Your task to perform on an android device: toggle javascript in the chrome app Image 0: 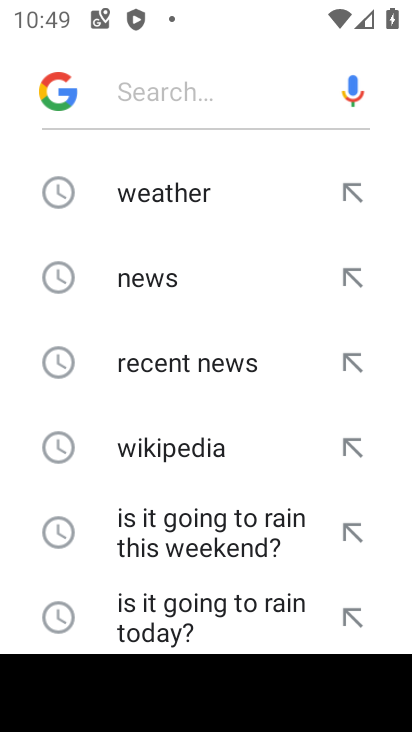
Step 0: press home button
Your task to perform on an android device: toggle javascript in the chrome app Image 1: 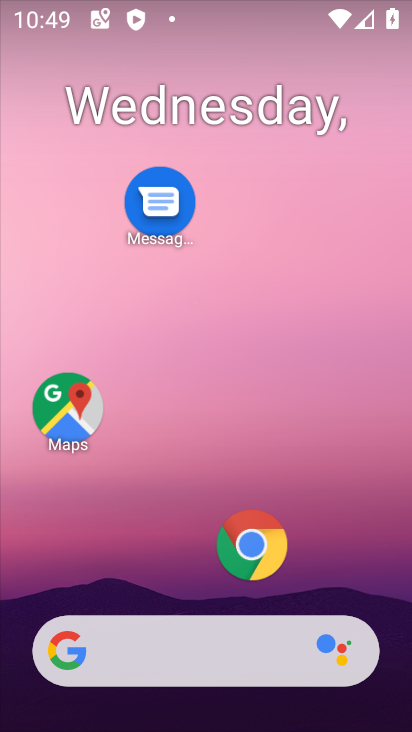
Step 1: click (277, 524)
Your task to perform on an android device: toggle javascript in the chrome app Image 2: 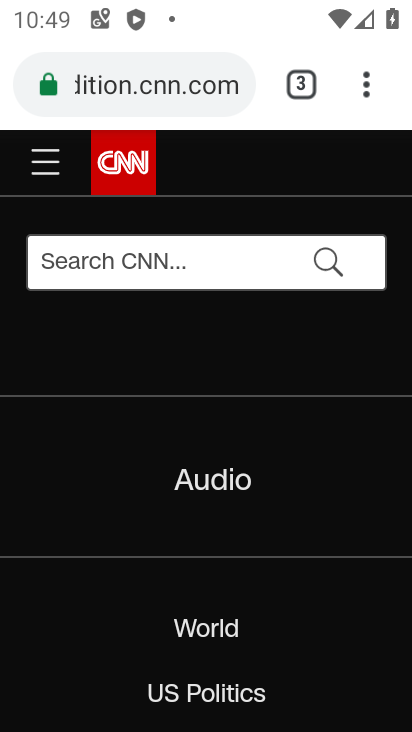
Step 2: click (360, 91)
Your task to perform on an android device: toggle javascript in the chrome app Image 3: 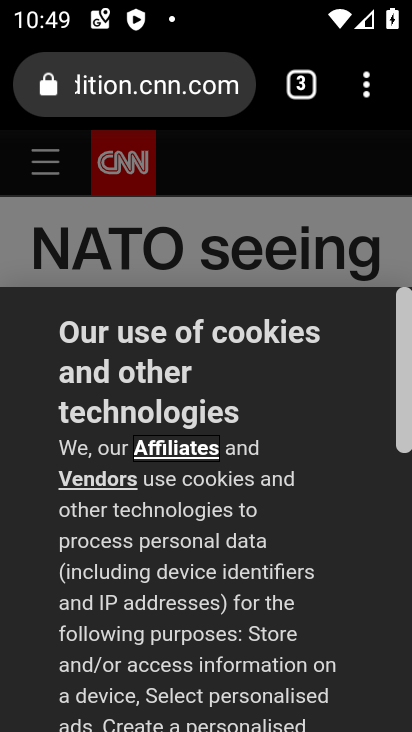
Step 3: click (359, 90)
Your task to perform on an android device: toggle javascript in the chrome app Image 4: 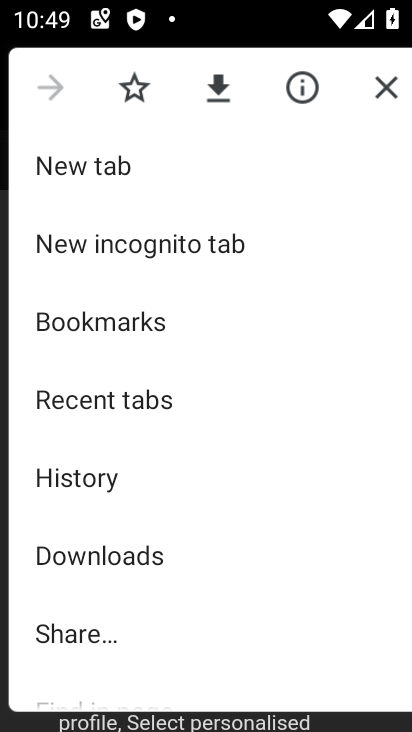
Step 4: drag from (147, 543) to (209, 314)
Your task to perform on an android device: toggle javascript in the chrome app Image 5: 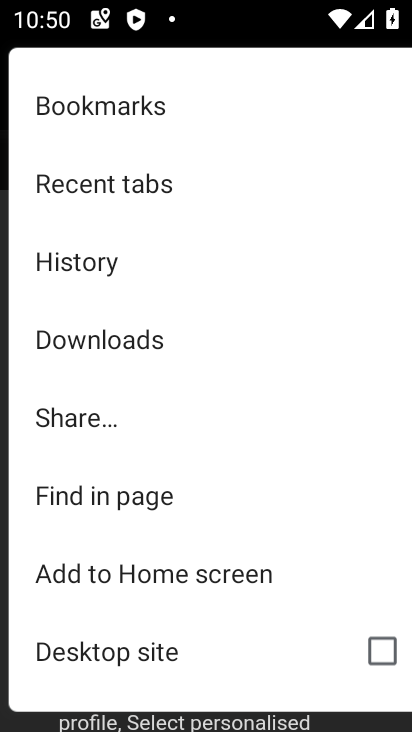
Step 5: drag from (202, 547) to (176, 330)
Your task to perform on an android device: toggle javascript in the chrome app Image 6: 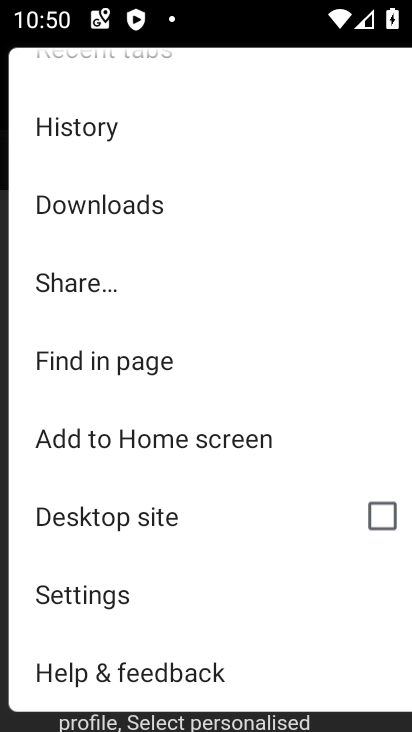
Step 6: click (149, 607)
Your task to perform on an android device: toggle javascript in the chrome app Image 7: 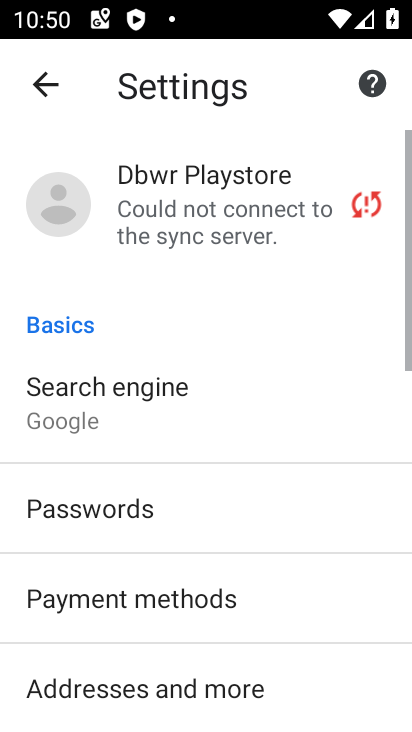
Step 7: drag from (150, 606) to (231, 225)
Your task to perform on an android device: toggle javascript in the chrome app Image 8: 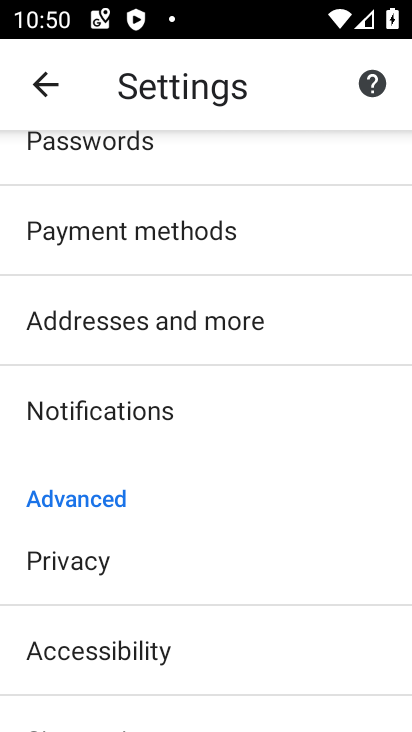
Step 8: drag from (125, 655) to (198, 323)
Your task to perform on an android device: toggle javascript in the chrome app Image 9: 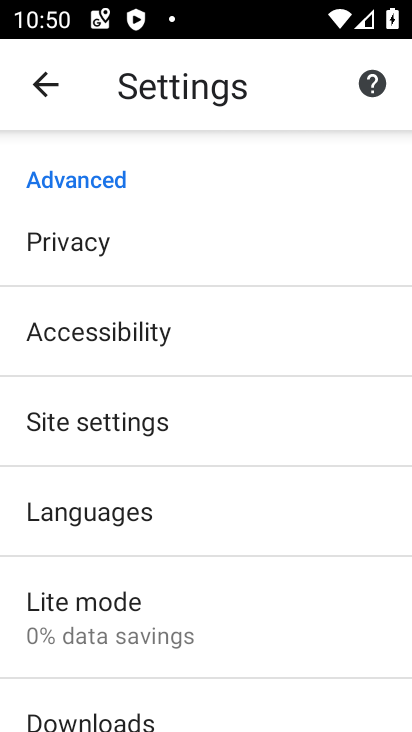
Step 9: drag from (145, 631) to (175, 450)
Your task to perform on an android device: toggle javascript in the chrome app Image 10: 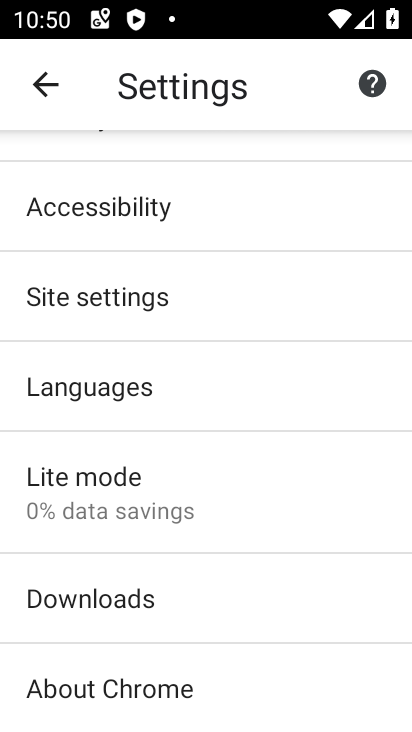
Step 10: drag from (160, 241) to (161, 425)
Your task to perform on an android device: toggle javascript in the chrome app Image 11: 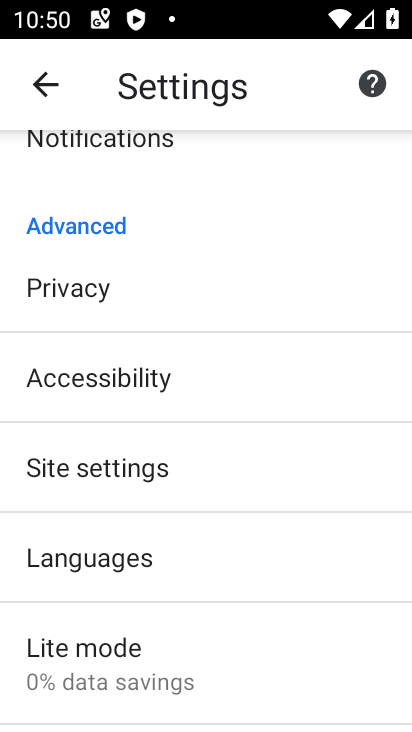
Step 11: click (140, 467)
Your task to perform on an android device: toggle javascript in the chrome app Image 12: 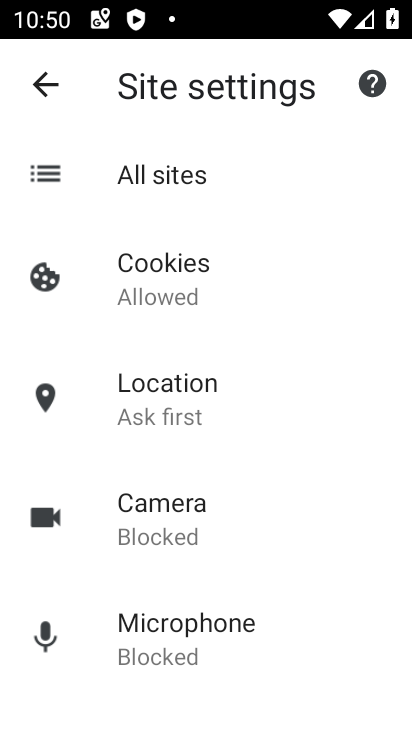
Step 12: drag from (170, 593) to (177, 532)
Your task to perform on an android device: toggle javascript in the chrome app Image 13: 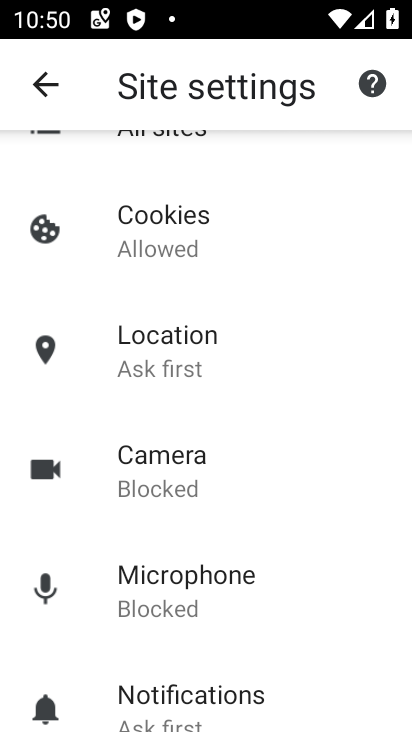
Step 13: drag from (204, 646) to (233, 381)
Your task to perform on an android device: toggle javascript in the chrome app Image 14: 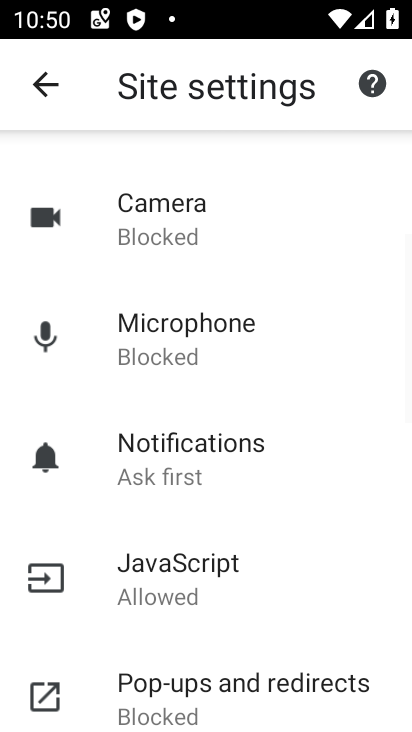
Step 14: click (228, 574)
Your task to perform on an android device: toggle javascript in the chrome app Image 15: 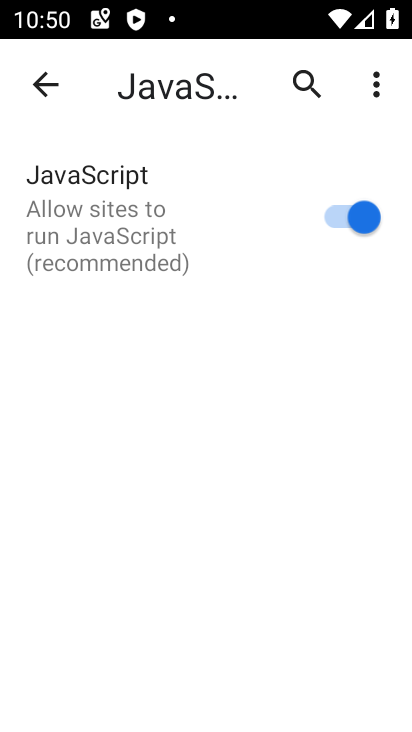
Step 15: click (329, 207)
Your task to perform on an android device: toggle javascript in the chrome app Image 16: 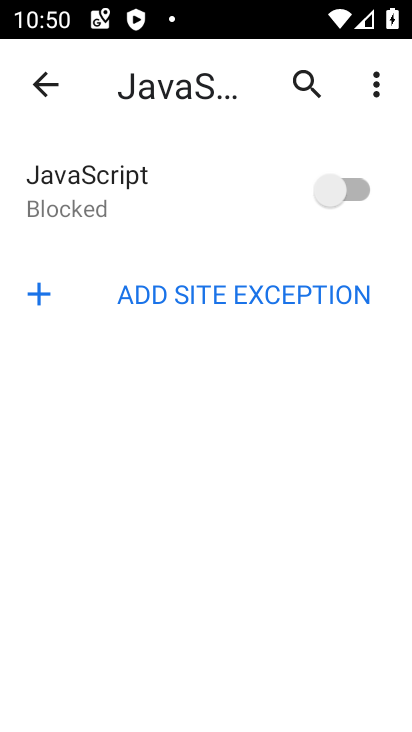
Step 16: click (365, 193)
Your task to perform on an android device: toggle javascript in the chrome app Image 17: 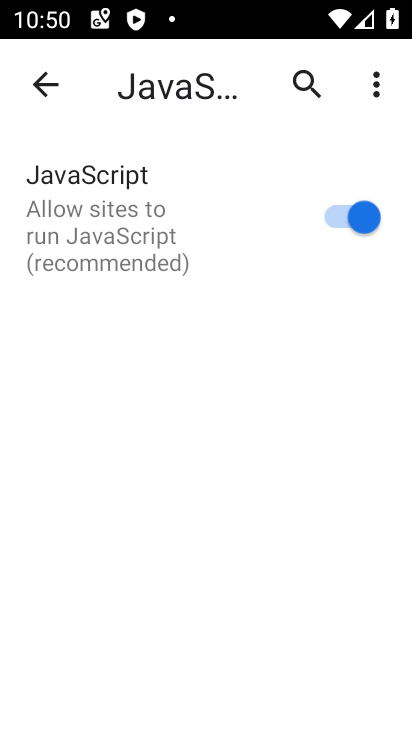
Step 17: task complete